Your task to perform on an android device: Open Wikipedia Image 0: 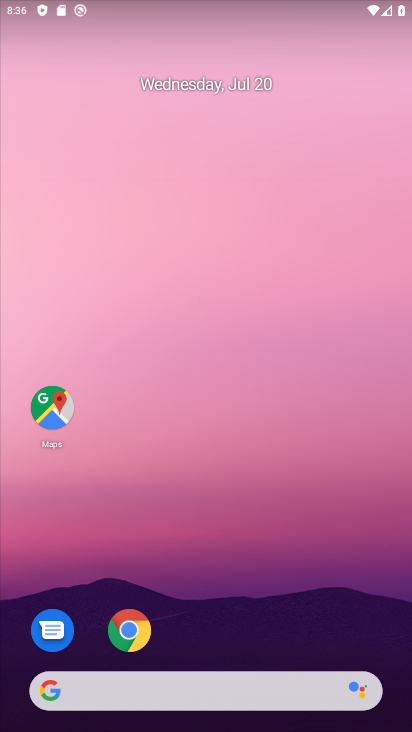
Step 0: click (120, 643)
Your task to perform on an android device: Open Wikipedia Image 1: 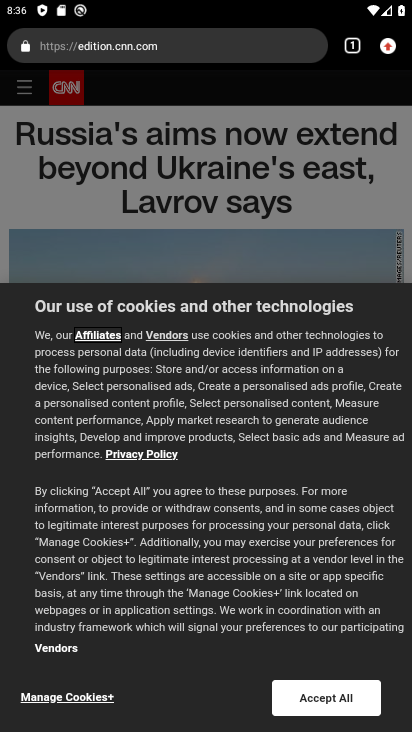
Step 1: click (86, 38)
Your task to perform on an android device: Open Wikipedia Image 2: 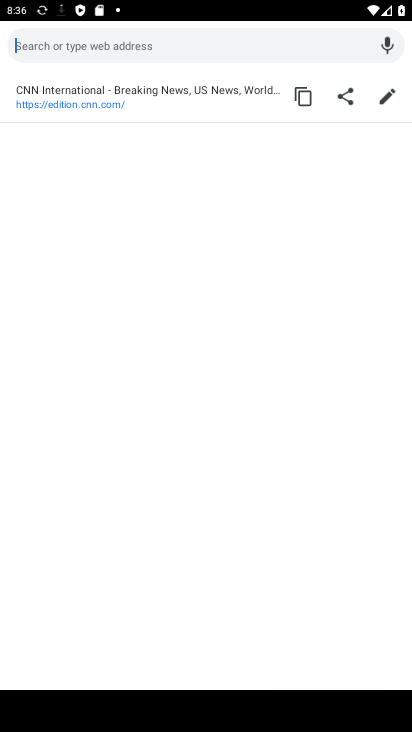
Step 2: type "wikipedia"
Your task to perform on an android device: Open Wikipedia Image 3: 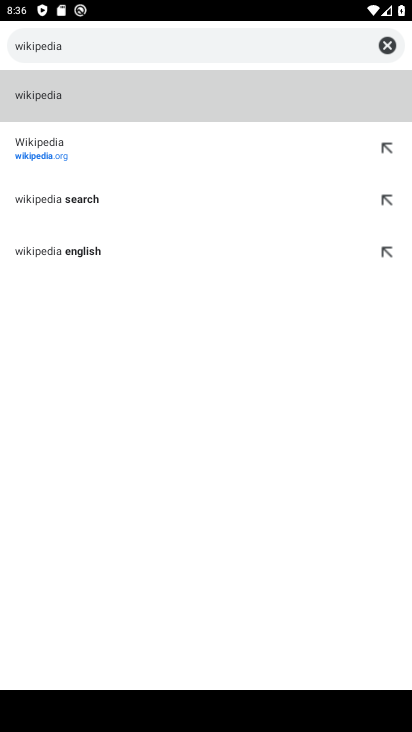
Step 3: click (74, 87)
Your task to perform on an android device: Open Wikipedia Image 4: 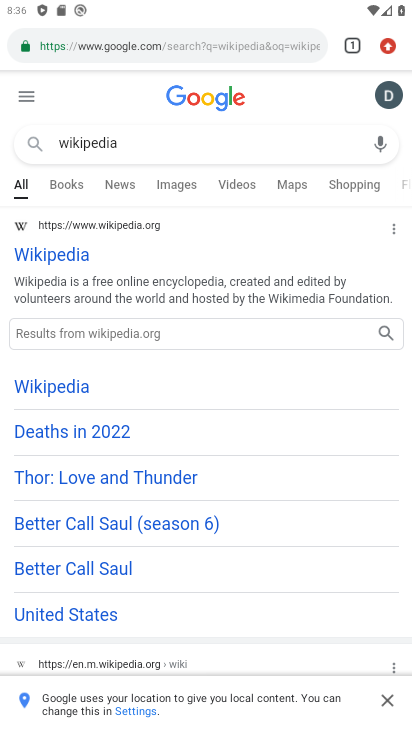
Step 4: click (46, 256)
Your task to perform on an android device: Open Wikipedia Image 5: 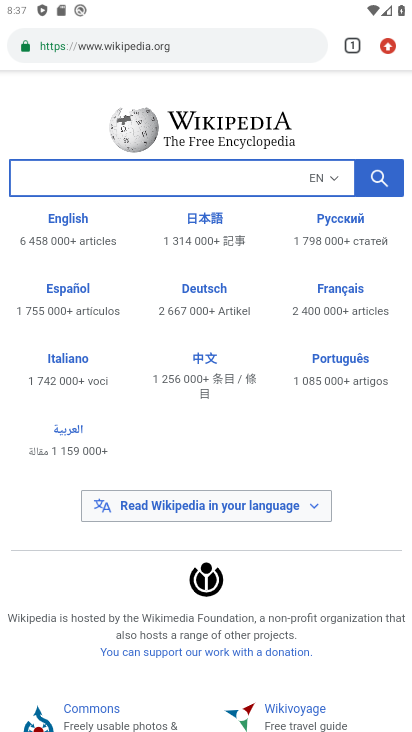
Step 5: task complete